Your task to perform on an android device: set the timer Image 0: 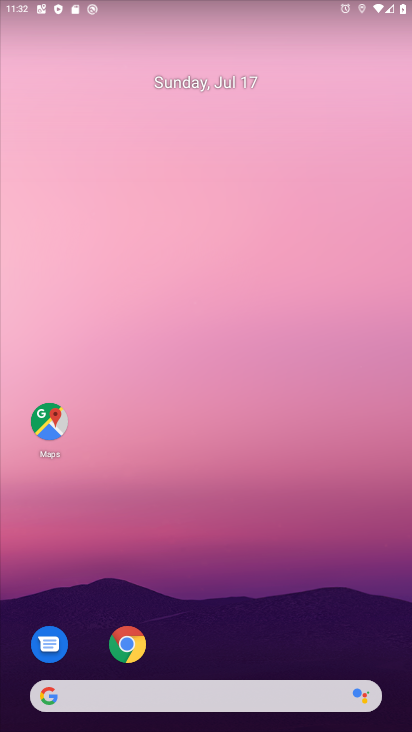
Step 0: drag from (259, 587) to (283, 32)
Your task to perform on an android device: set the timer Image 1: 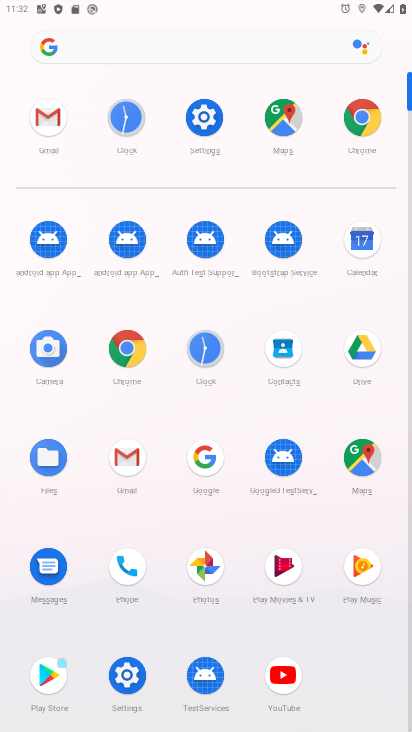
Step 1: click (203, 340)
Your task to perform on an android device: set the timer Image 2: 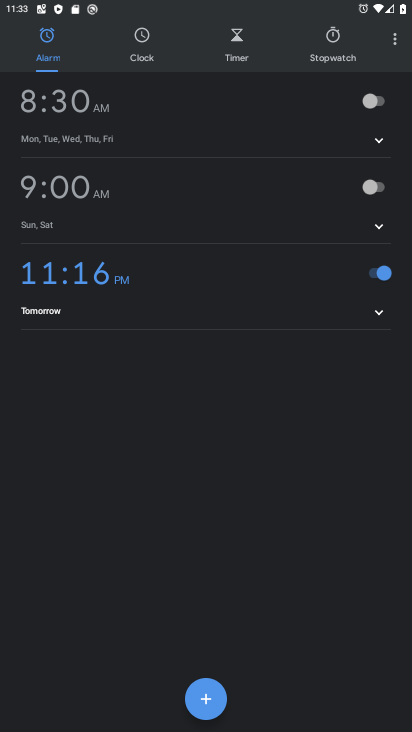
Step 2: click (246, 43)
Your task to perform on an android device: set the timer Image 3: 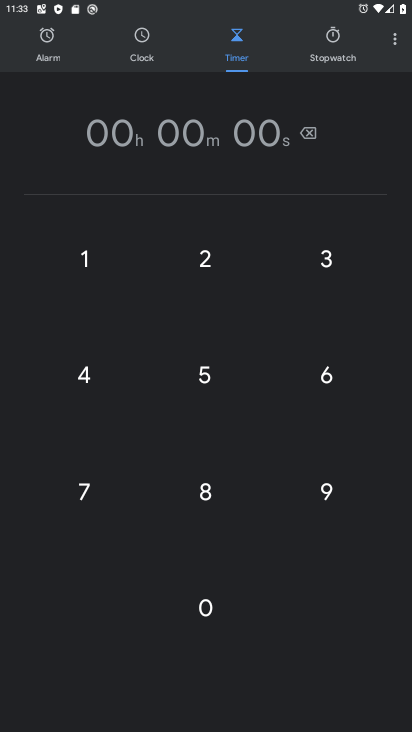
Step 3: click (212, 708)
Your task to perform on an android device: set the timer Image 4: 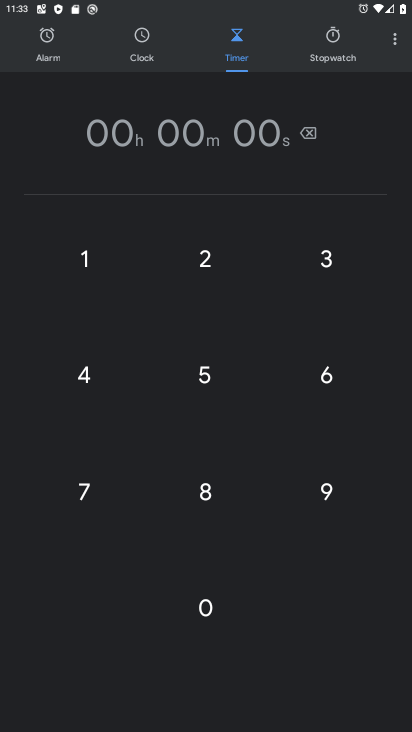
Step 4: click (223, 358)
Your task to perform on an android device: set the timer Image 5: 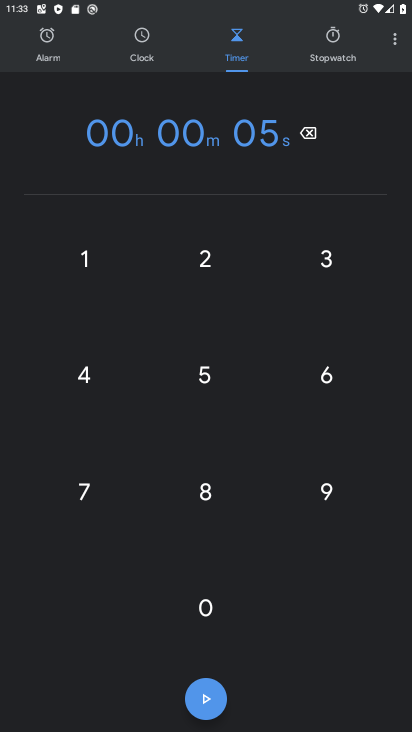
Step 5: task complete